Your task to perform on an android device: see tabs open on other devices in the chrome app Image 0: 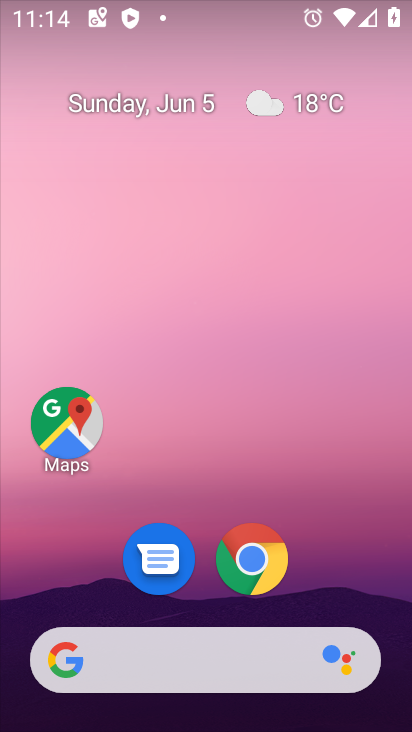
Step 0: click (256, 559)
Your task to perform on an android device: see tabs open on other devices in the chrome app Image 1: 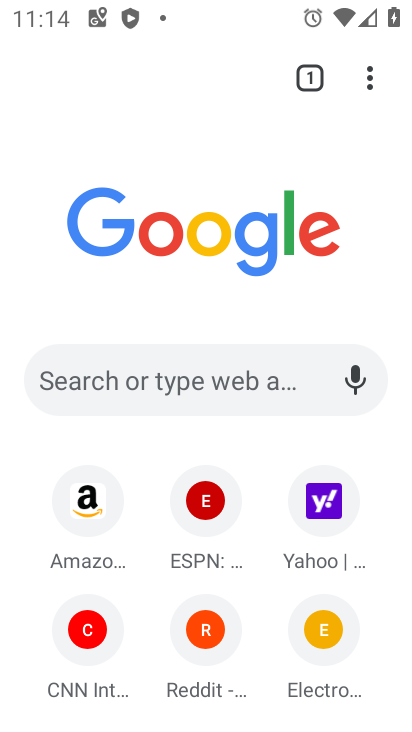
Step 1: click (376, 76)
Your task to perform on an android device: see tabs open on other devices in the chrome app Image 2: 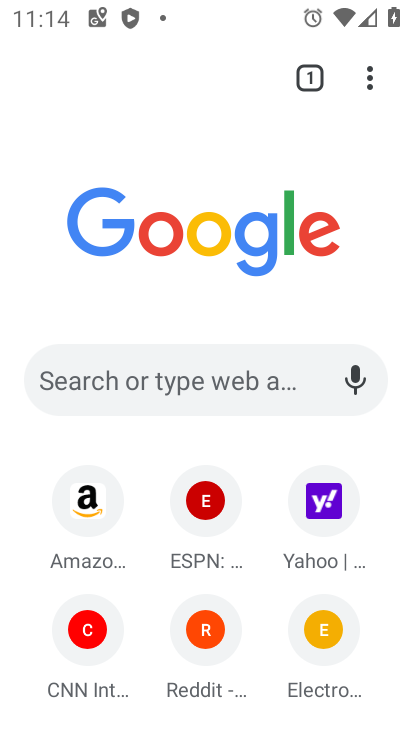
Step 2: click (368, 73)
Your task to perform on an android device: see tabs open on other devices in the chrome app Image 3: 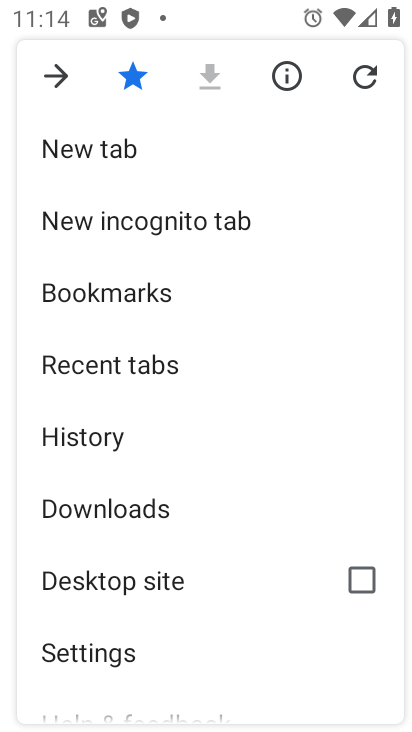
Step 3: drag from (296, 608) to (208, 187)
Your task to perform on an android device: see tabs open on other devices in the chrome app Image 4: 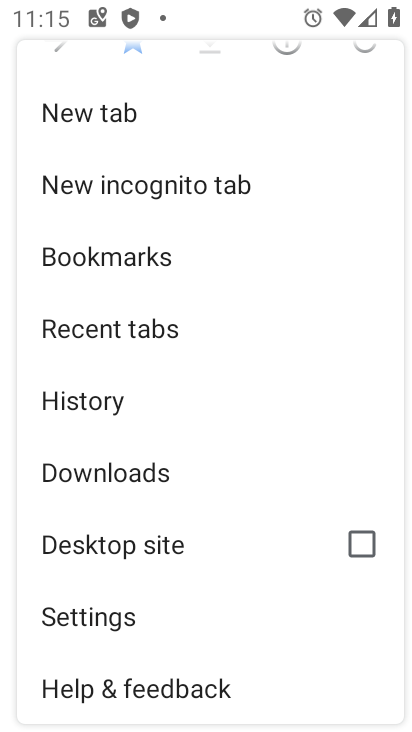
Step 4: click (133, 326)
Your task to perform on an android device: see tabs open on other devices in the chrome app Image 5: 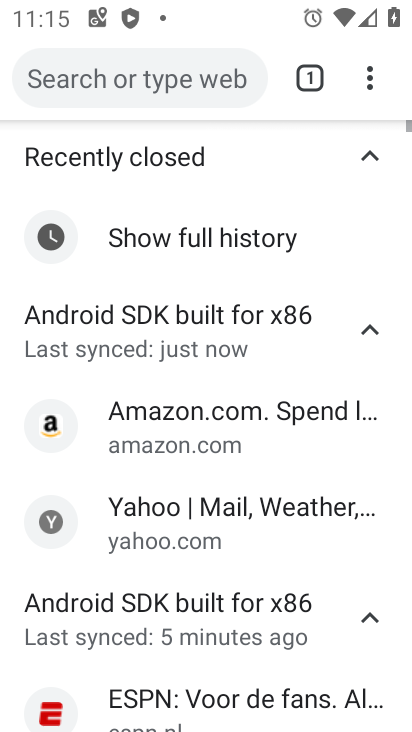
Step 5: task complete